Your task to perform on an android device: Go to Google maps Image 0: 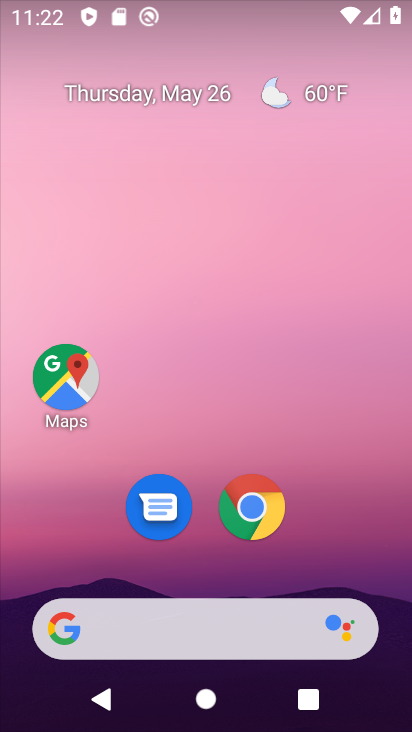
Step 0: click (57, 385)
Your task to perform on an android device: Go to Google maps Image 1: 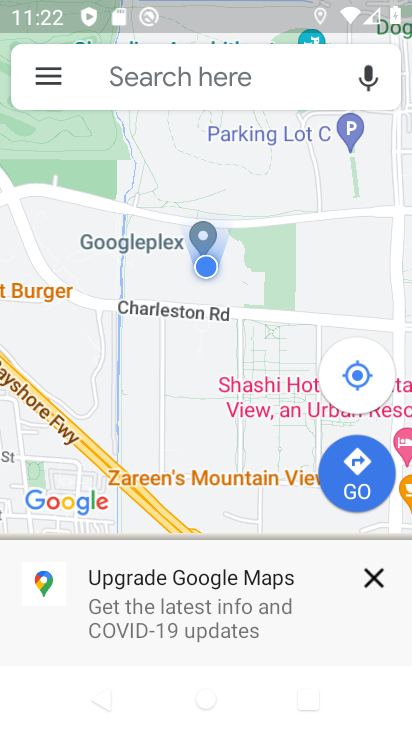
Step 1: task complete